Your task to perform on an android device: Go to network settings Image 0: 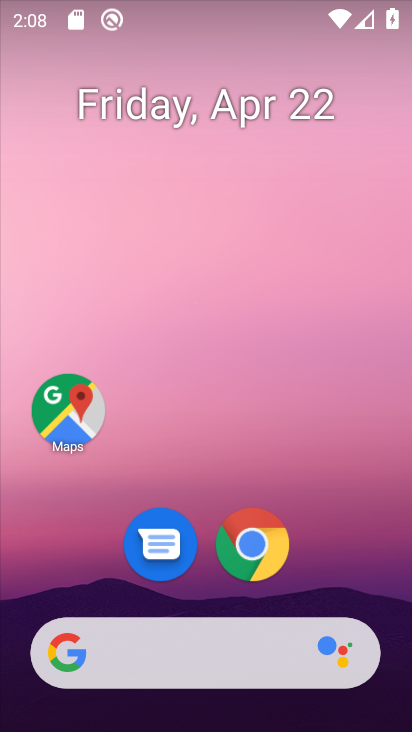
Step 0: drag from (99, 613) to (260, 111)
Your task to perform on an android device: Go to network settings Image 1: 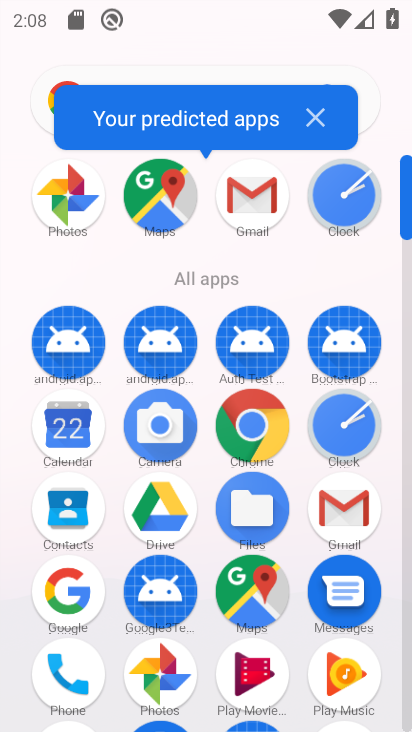
Step 1: drag from (186, 557) to (281, 217)
Your task to perform on an android device: Go to network settings Image 2: 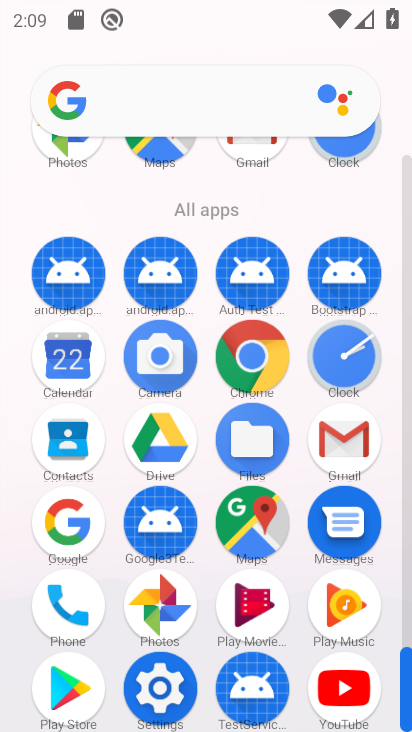
Step 2: click (156, 696)
Your task to perform on an android device: Go to network settings Image 3: 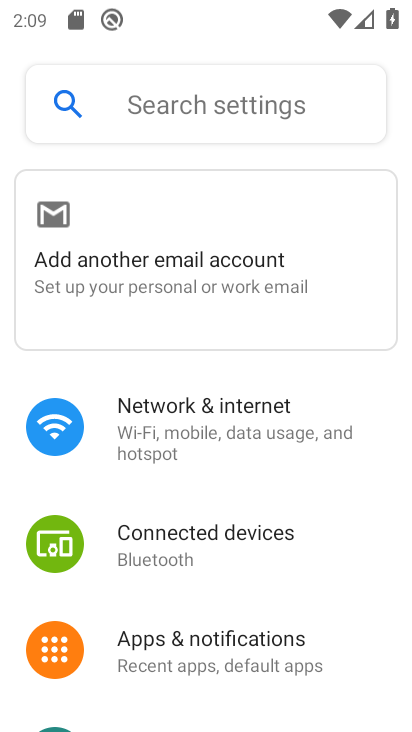
Step 3: click (212, 442)
Your task to perform on an android device: Go to network settings Image 4: 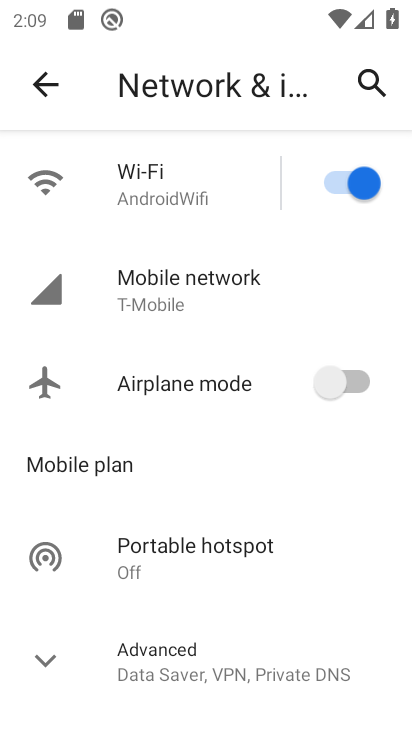
Step 4: click (235, 306)
Your task to perform on an android device: Go to network settings Image 5: 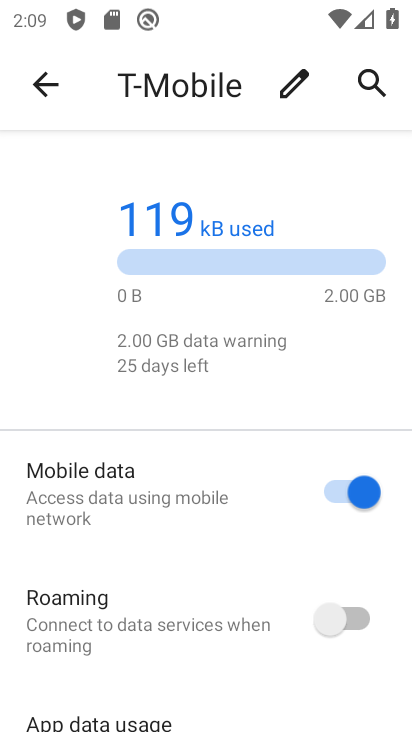
Step 5: task complete